Your task to perform on an android device: Open Yahoo.com Image 0: 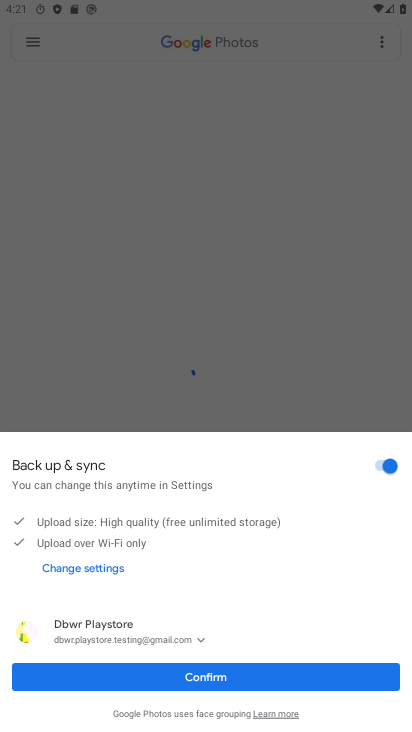
Step 0: press home button
Your task to perform on an android device: Open Yahoo.com Image 1: 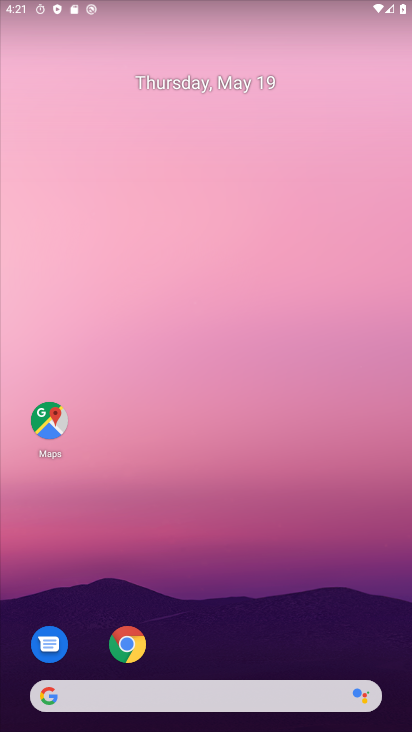
Step 1: drag from (207, 677) to (241, 216)
Your task to perform on an android device: Open Yahoo.com Image 2: 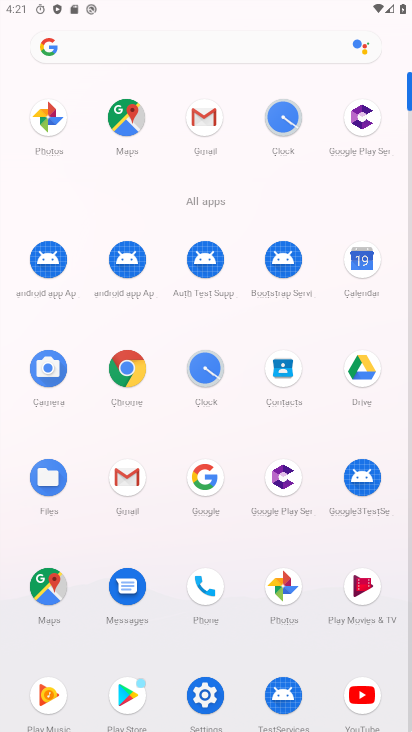
Step 2: click (117, 374)
Your task to perform on an android device: Open Yahoo.com Image 3: 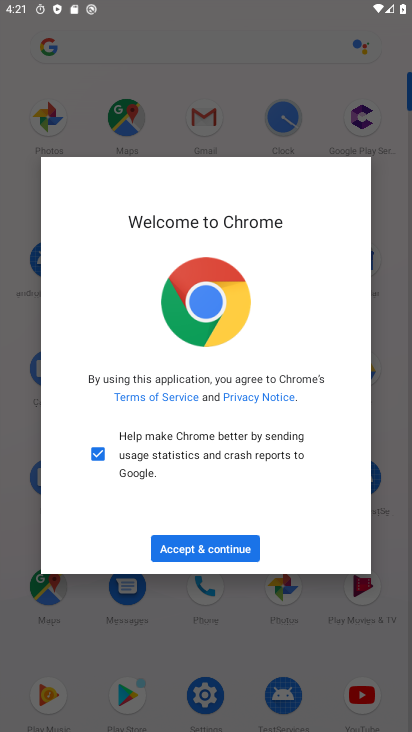
Step 3: click (223, 546)
Your task to perform on an android device: Open Yahoo.com Image 4: 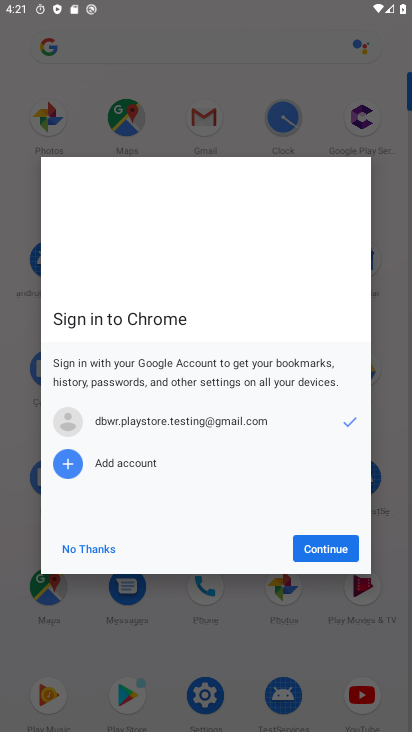
Step 4: click (338, 552)
Your task to perform on an android device: Open Yahoo.com Image 5: 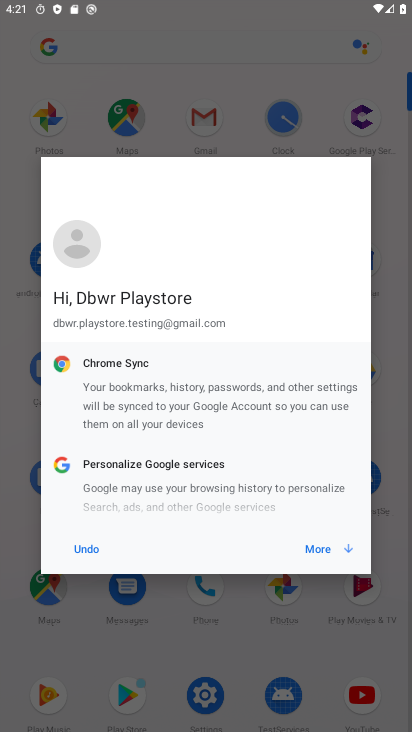
Step 5: click (330, 547)
Your task to perform on an android device: Open Yahoo.com Image 6: 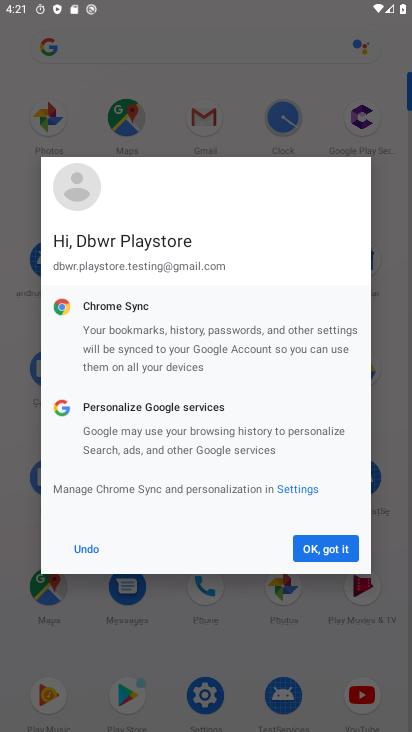
Step 6: click (327, 553)
Your task to perform on an android device: Open Yahoo.com Image 7: 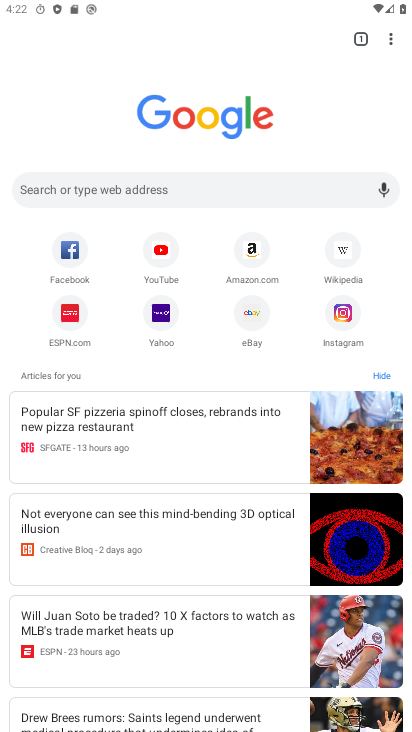
Step 7: click (162, 310)
Your task to perform on an android device: Open Yahoo.com Image 8: 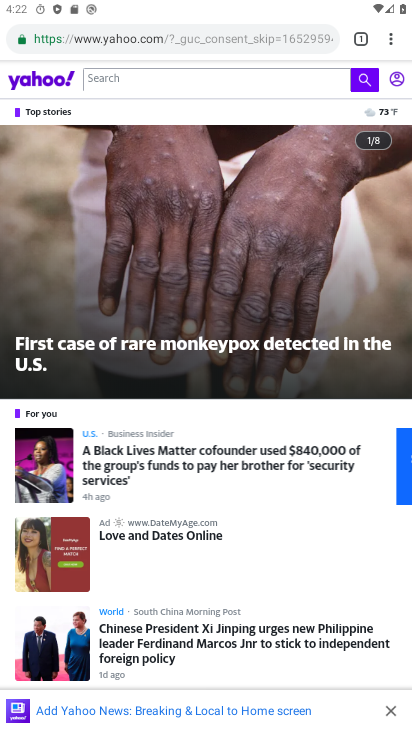
Step 8: task complete